Your task to perform on an android device: Open Wikipedia Image 0: 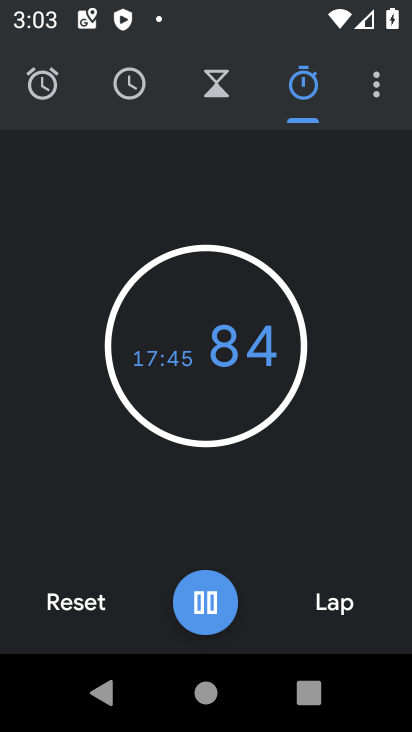
Step 0: press home button
Your task to perform on an android device: Open Wikipedia Image 1: 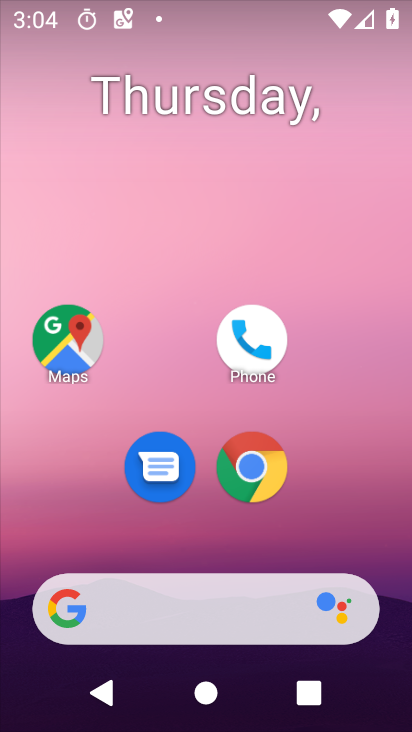
Step 1: drag from (222, 632) to (220, 171)
Your task to perform on an android device: Open Wikipedia Image 2: 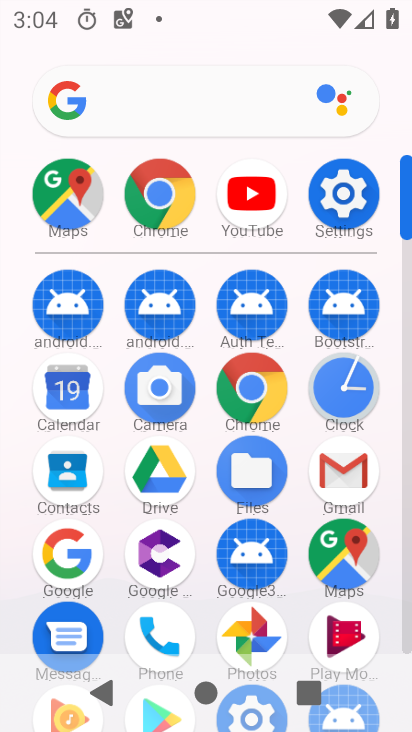
Step 2: click (162, 188)
Your task to perform on an android device: Open Wikipedia Image 3: 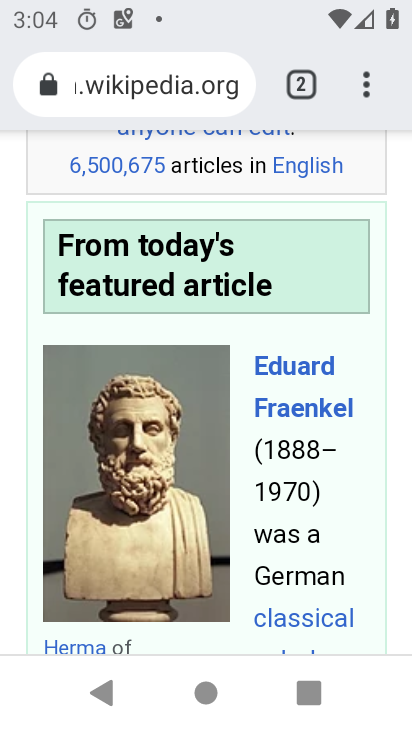
Step 3: task complete